Your task to perform on an android device: show emergency info Image 0: 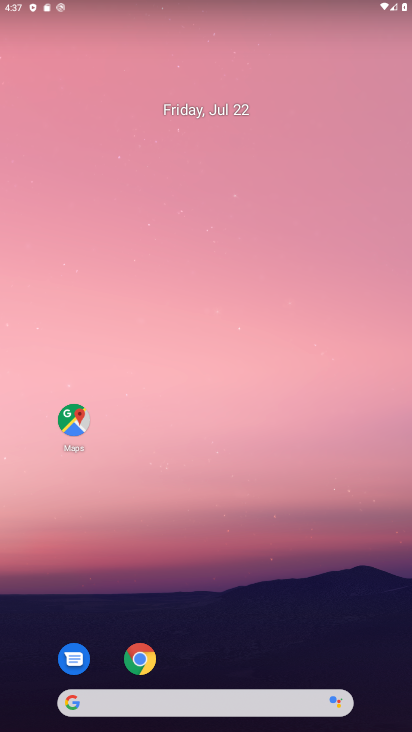
Step 0: drag from (328, 634) to (390, 165)
Your task to perform on an android device: show emergency info Image 1: 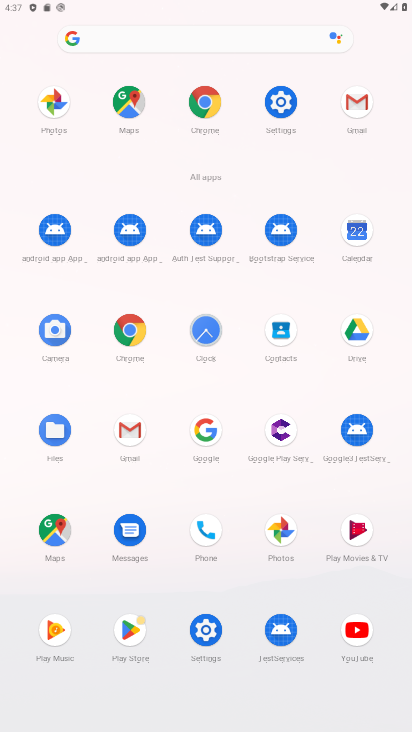
Step 1: drag from (203, 640) to (155, 290)
Your task to perform on an android device: show emergency info Image 2: 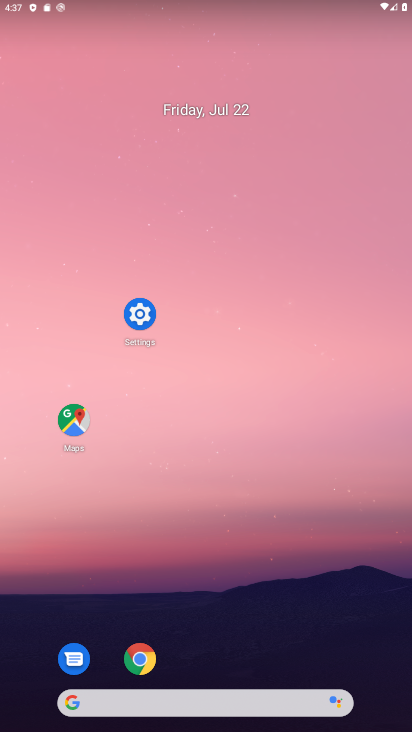
Step 2: click (136, 325)
Your task to perform on an android device: show emergency info Image 3: 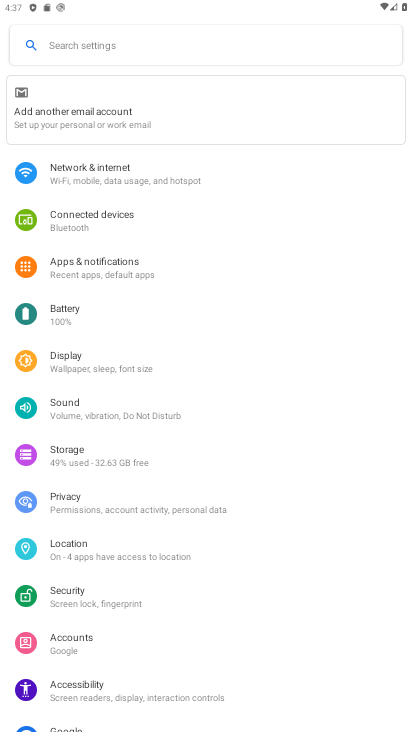
Step 3: drag from (157, 638) to (218, 357)
Your task to perform on an android device: show emergency info Image 4: 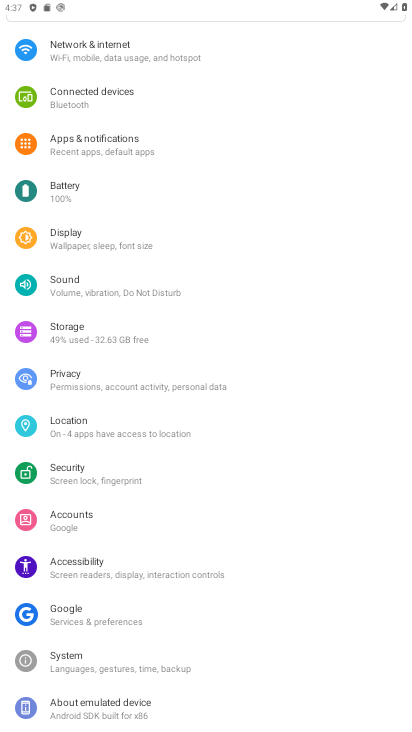
Step 4: click (135, 725)
Your task to perform on an android device: show emergency info Image 5: 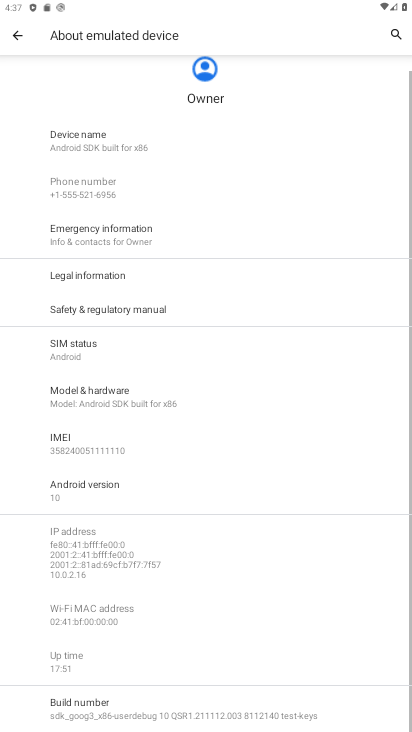
Step 5: click (216, 214)
Your task to perform on an android device: show emergency info Image 6: 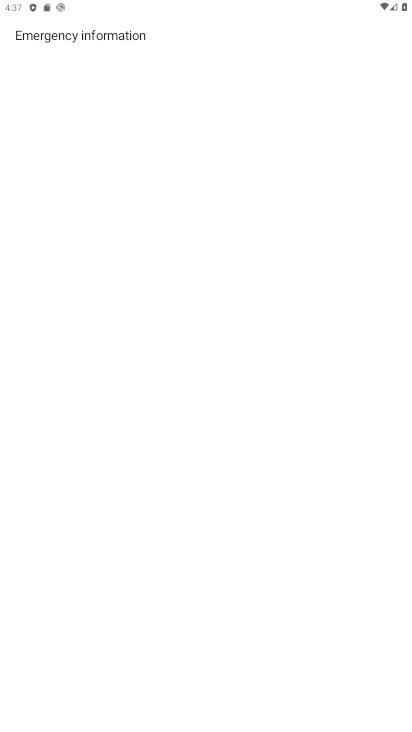
Step 6: task complete